Your task to perform on an android device: Search for pizza restaurants on Maps Image 0: 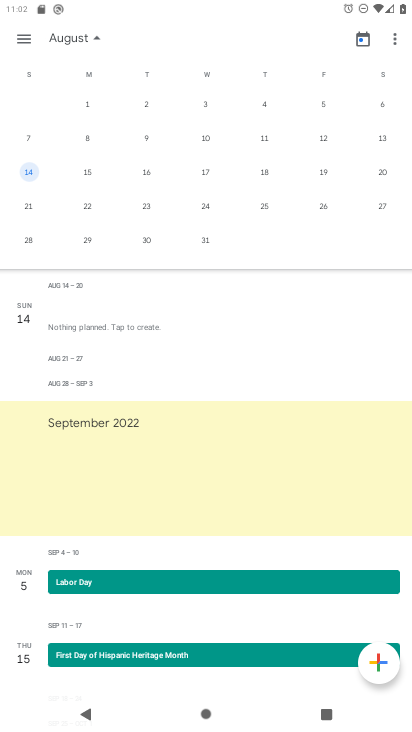
Step 0: press home button
Your task to perform on an android device: Search for pizza restaurants on Maps Image 1: 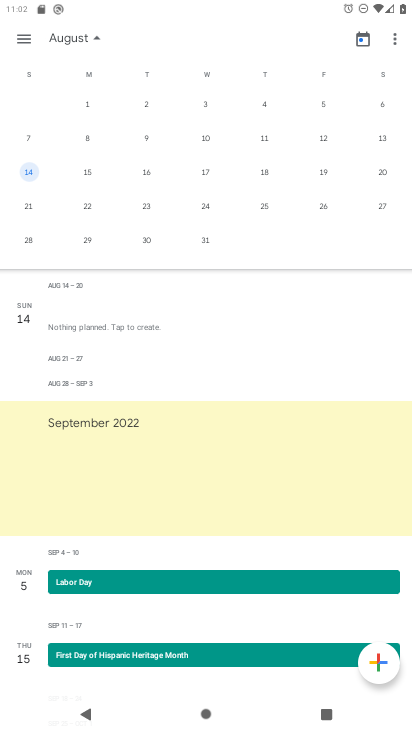
Step 1: drag from (405, 679) to (277, 60)
Your task to perform on an android device: Search for pizza restaurants on Maps Image 2: 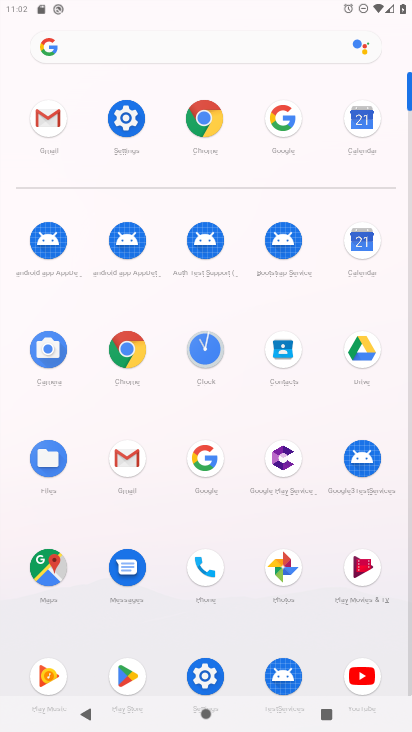
Step 2: click (47, 550)
Your task to perform on an android device: Search for pizza restaurants on Maps Image 3: 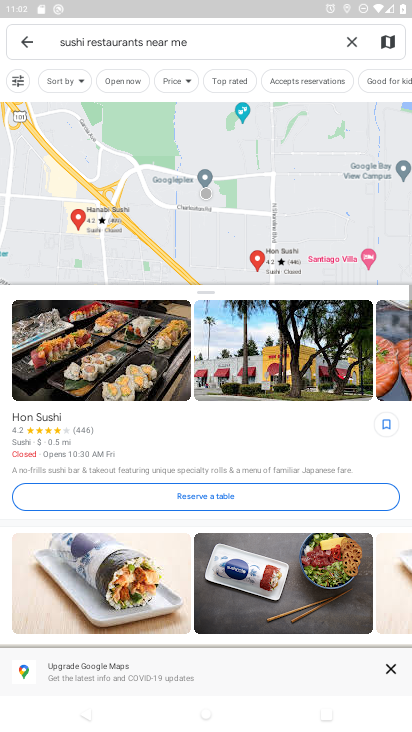
Step 3: click (349, 38)
Your task to perform on an android device: Search for pizza restaurants on Maps Image 4: 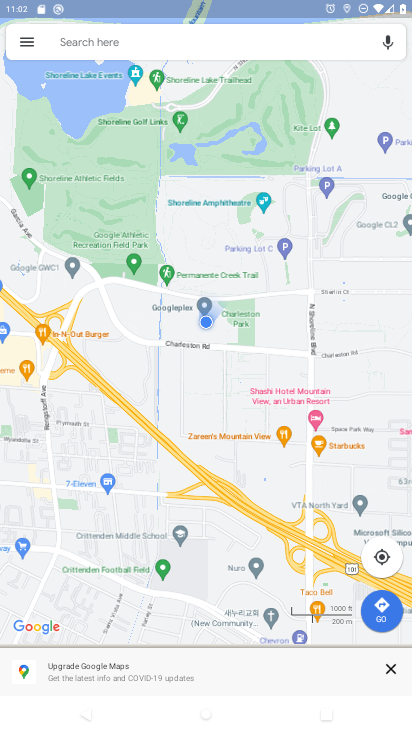
Step 4: click (163, 39)
Your task to perform on an android device: Search for pizza restaurants on Maps Image 5: 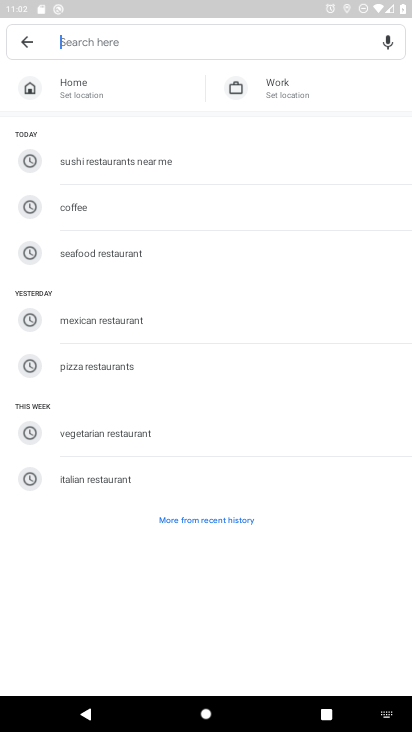
Step 5: click (107, 365)
Your task to perform on an android device: Search for pizza restaurants on Maps Image 6: 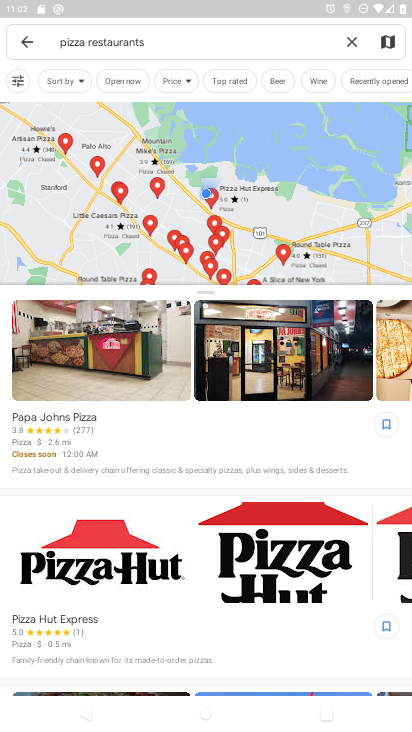
Step 6: task complete